Your task to perform on an android device: Go to calendar. Show me events next week Image 0: 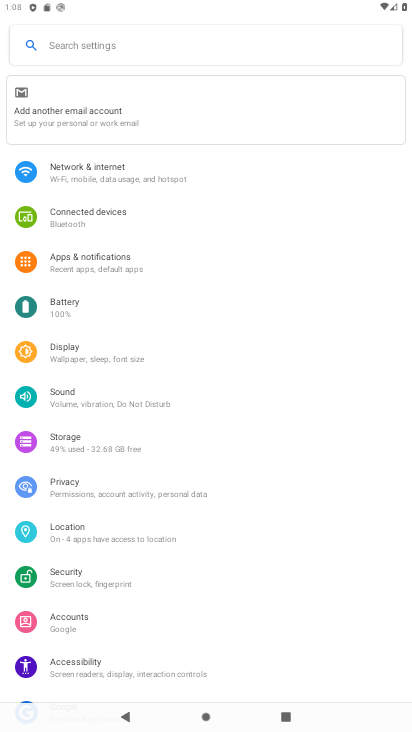
Step 0: press home button
Your task to perform on an android device: Go to calendar. Show me events next week Image 1: 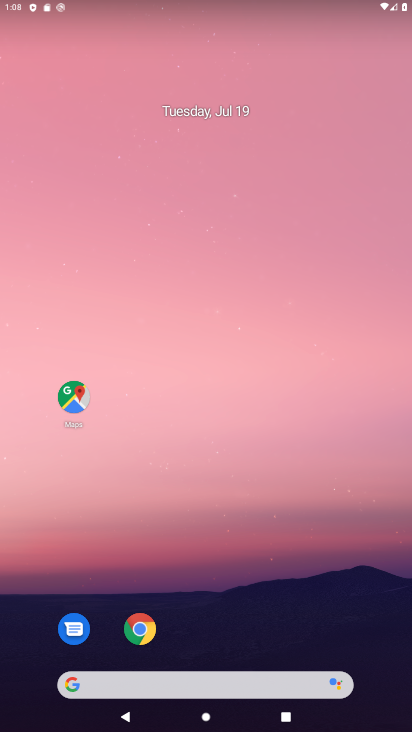
Step 1: drag from (258, 620) to (238, 86)
Your task to perform on an android device: Go to calendar. Show me events next week Image 2: 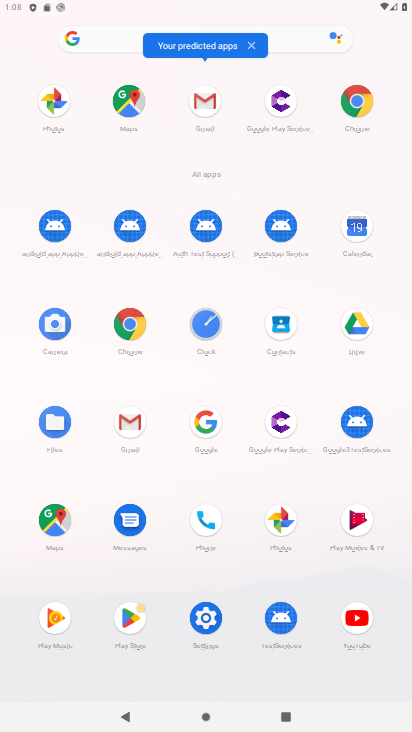
Step 2: click (355, 223)
Your task to perform on an android device: Go to calendar. Show me events next week Image 3: 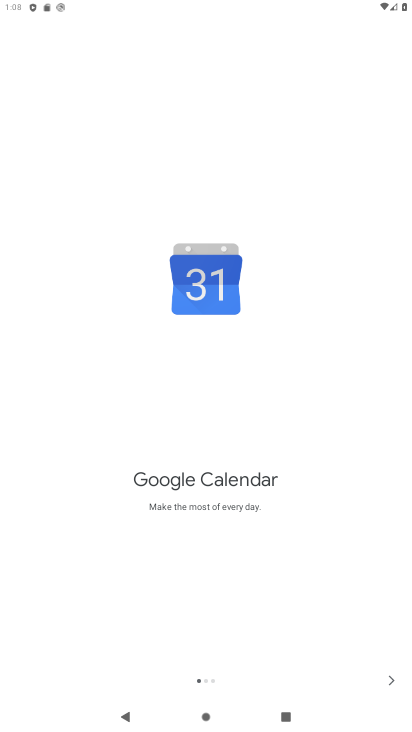
Step 3: click (389, 678)
Your task to perform on an android device: Go to calendar. Show me events next week Image 4: 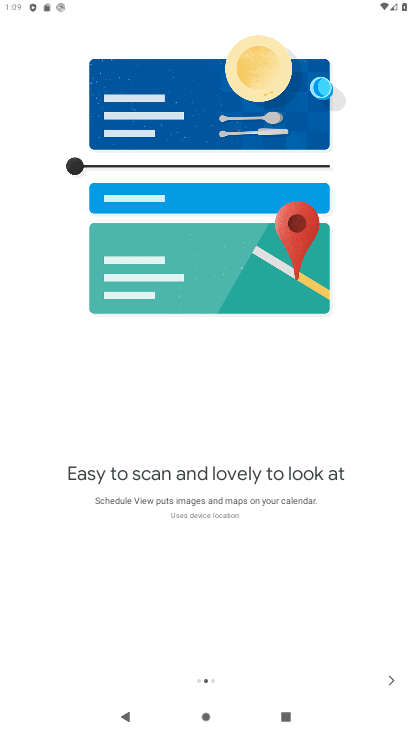
Step 4: click (392, 684)
Your task to perform on an android device: Go to calendar. Show me events next week Image 5: 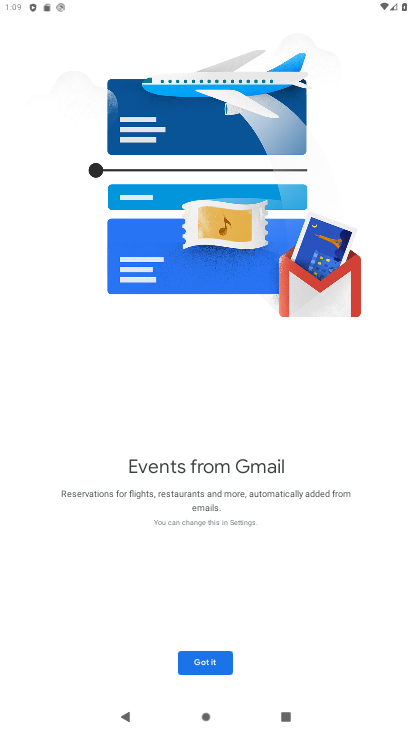
Step 5: click (224, 663)
Your task to perform on an android device: Go to calendar. Show me events next week Image 6: 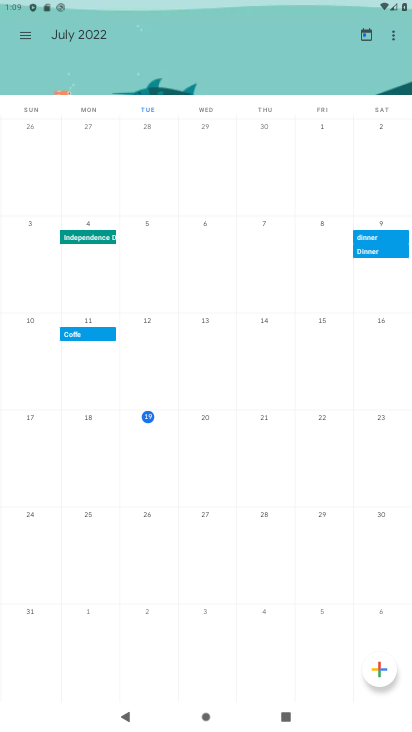
Step 6: click (154, 444)
Your task to perform on an android device: Go to calendar. Show me events next week Image 7: 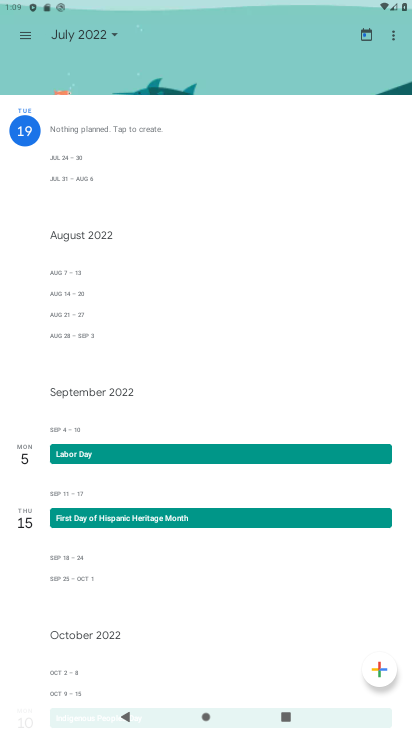
Step 7: task complete